Your task to perform on an android device: Is it going to rain today? Image 0: 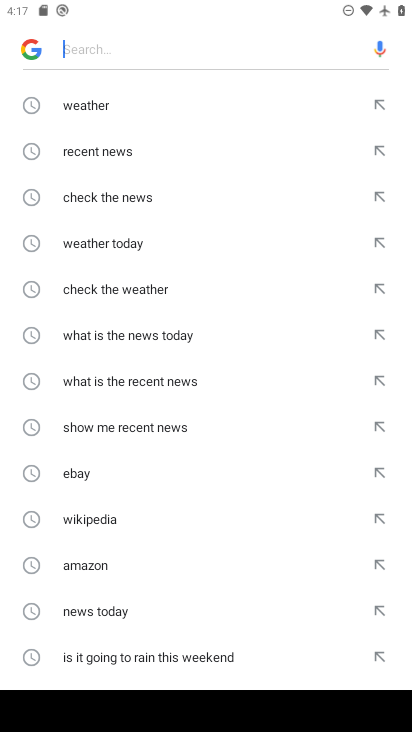
Step 0: click (134, 253)
Your task to perform on an android device: Is it going to rain today? Image 1: 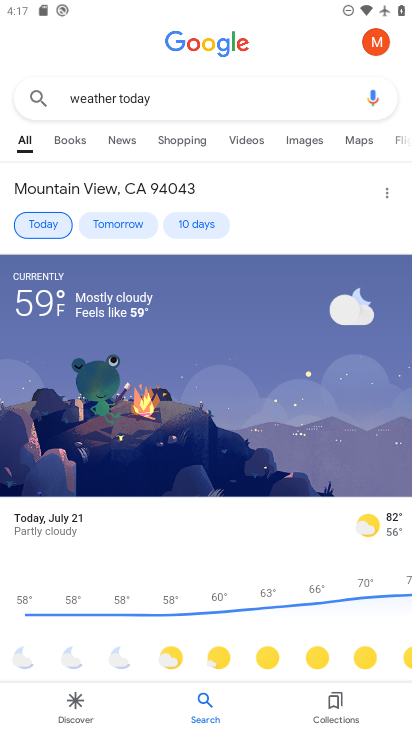
Step 1: click (31, 233)
Your task to perform on an android device: Is it going to rain today? Image 2: 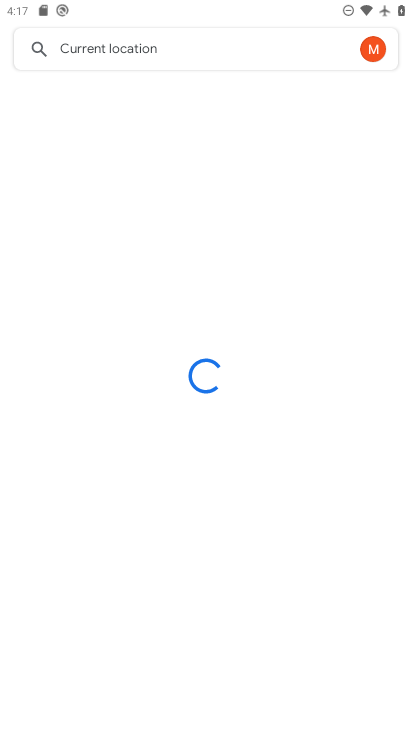
Step 2: task complete